Your task to perform on an android device: allow notifications from all sites in the chrome app Image 0: 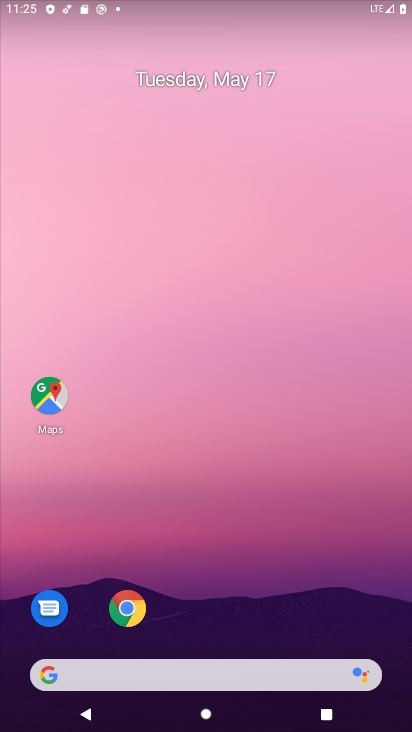
Step 0: click (125, 604)
Your task to perform on an android device: allow notifications from all sites in the chrome app Image 1: 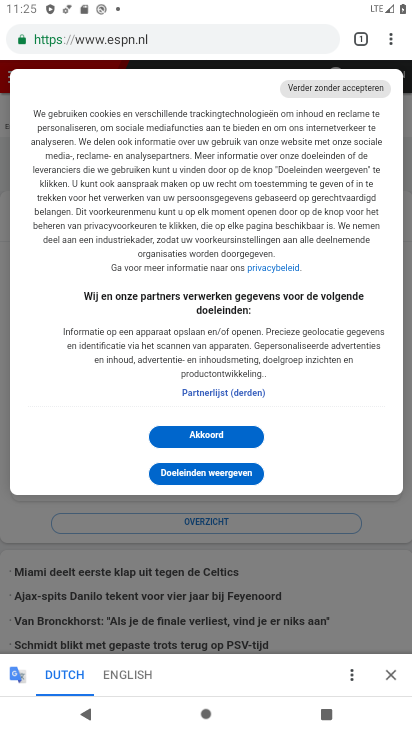
Step 1: press home button
Your task to perform on an android device: allow notifications from all sites in the chrome app Image 2: 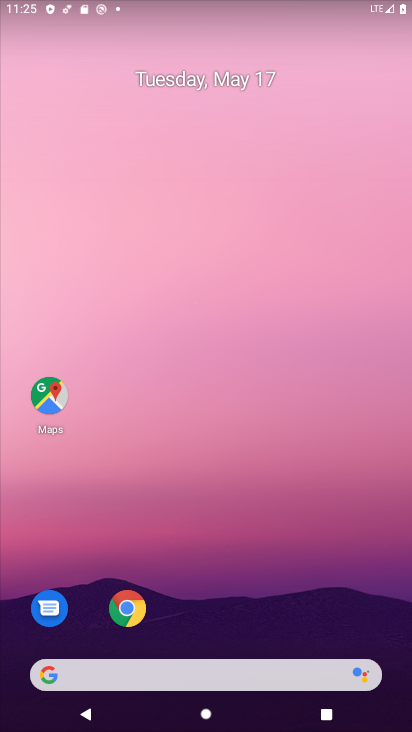
Step 2: click (131, 601)
Your task to perform on an android device: allow notifications from all sites in the chrome app Image 3: 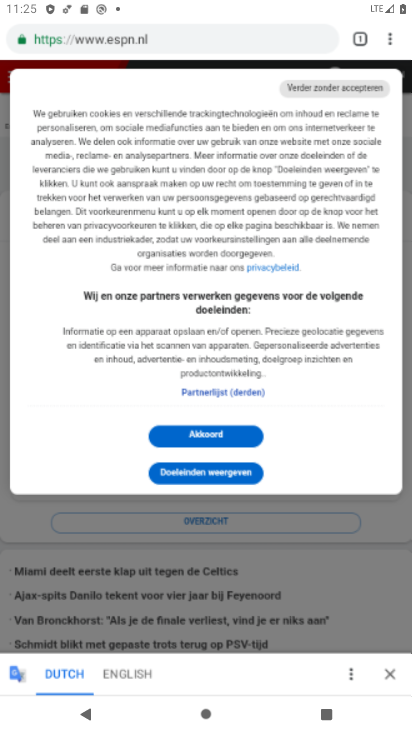
Step 3: click (383, 38)
Your task to perform on an android device: allow notifications from all sites in the chrome app Image 4: 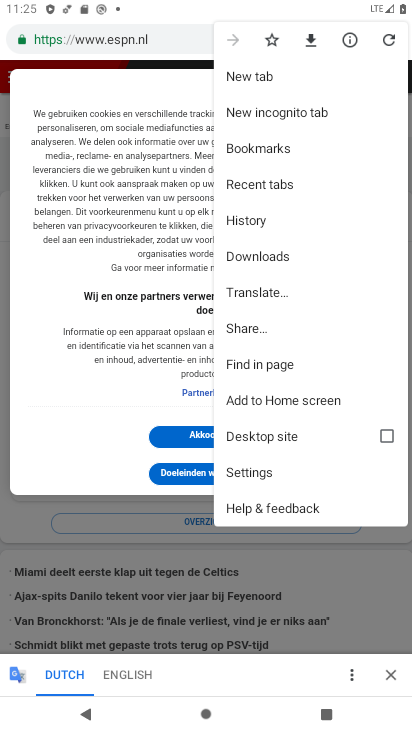
Step 4: click (255, 464)
Your task to perform on an android device: allow notifications from all sites in the chrome app Image 5: 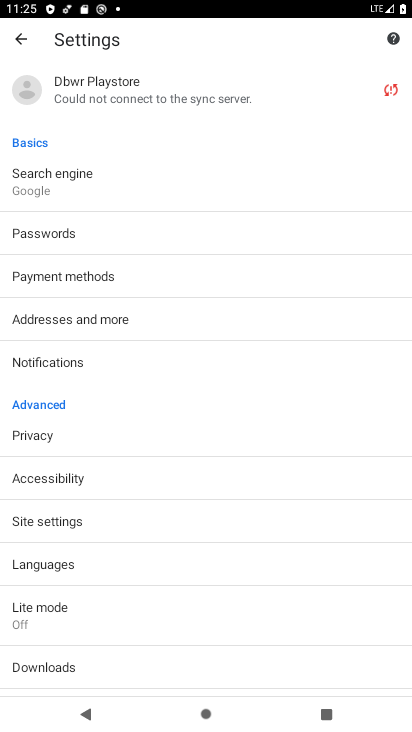
Step 5: click (59, 519)
Your task to perform on an android device: allow notifications from all sites in the chrome app Image 6: 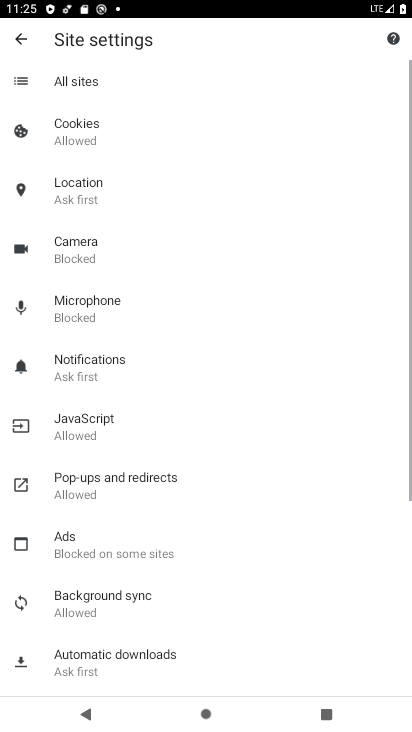
Step 6: click (78, 86)
Your task to perform on an android device: allow notifications from all sites in the chrome app Image 7: 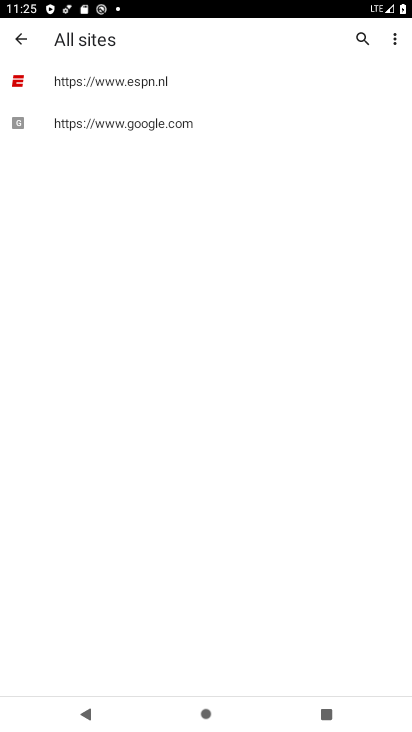
Step 7: click (103, 81)
Your task to perform on an android device: allow notifications from all sites in the chrome app Image 8: 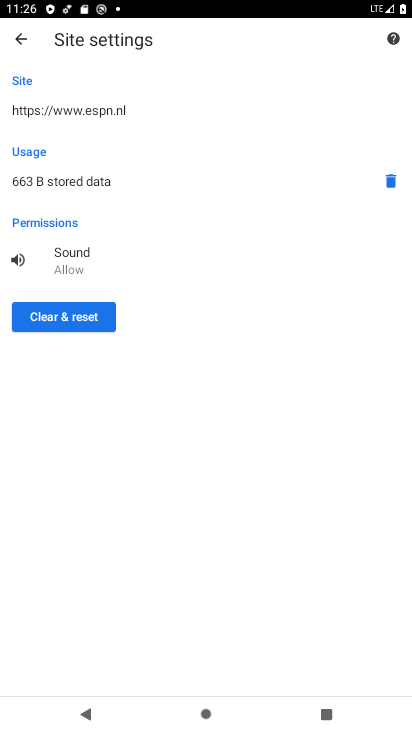
Step 8: task complete